Your task to perform on an android device: Search for Italian restaurants on Maps Image 0: 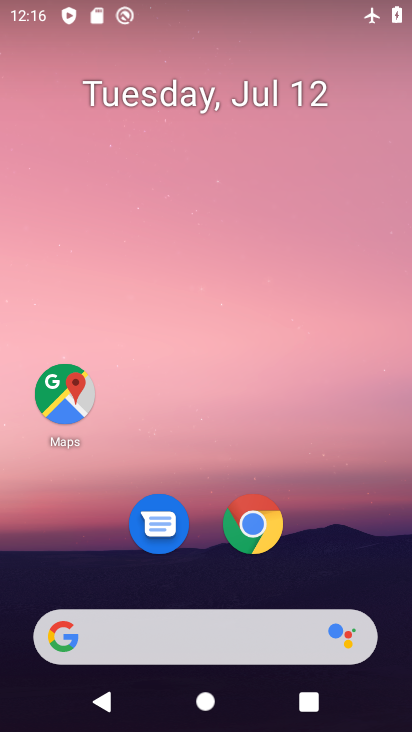
Step 0: click (74, 380)
Your task to perform on an android device: Search for Italian restaurants on Maps Image 1: 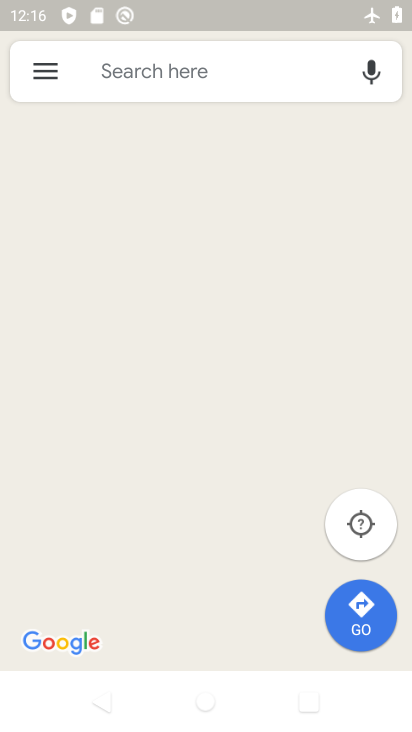
Step 1: click (192, 71)
Your task to perform on an android device: Search for Italian restaurants on Maps Image 2: 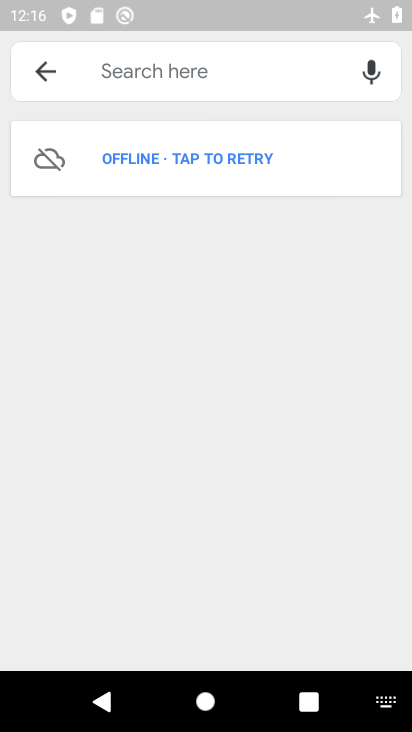
Step 2: type "italian restaurants"
Your task to perform on an android device: Search for Italian restaurants on Maps Image 3: 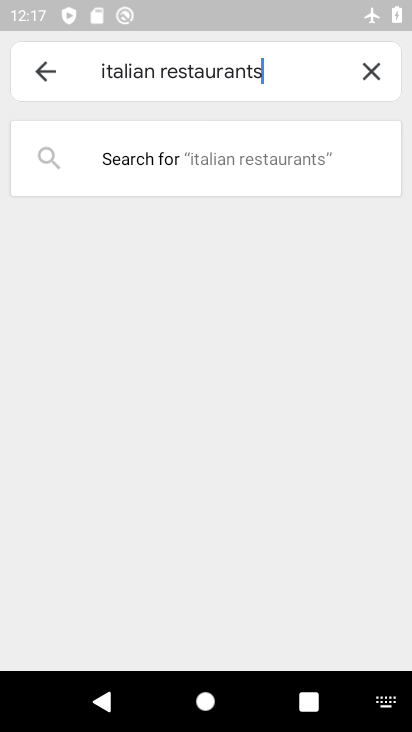
Step 3: click (156, 163)
Your task to perform on an android device: Search for Italian restaurants on Maps Image 4: 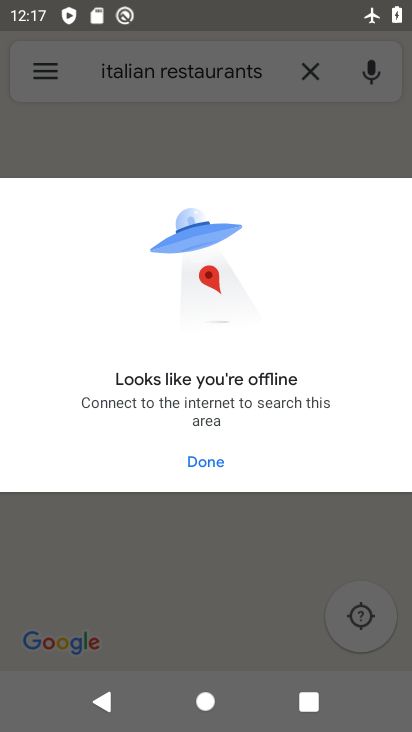
Step 4: task complete